Your task to perform on an android device: Go to Google Image 0: 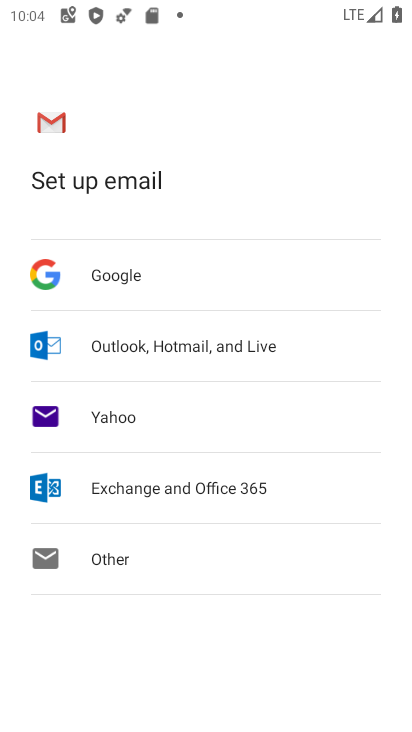
Step 0: press home button
Your task to perform on an android device: Go to Google Image 1: 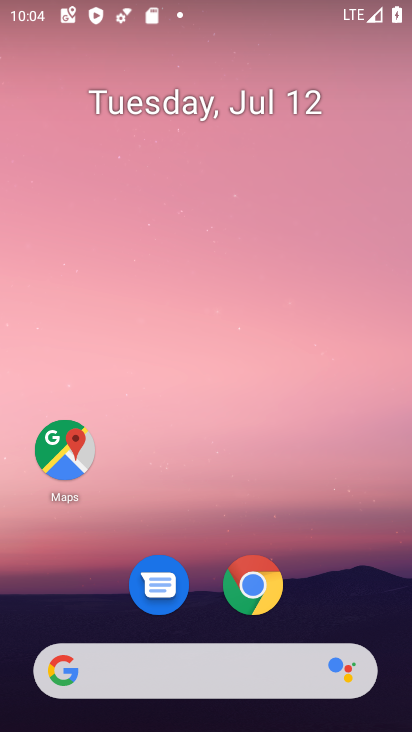
Step 1: drag from (218, 668) to (281, 43)
Your task to perform on an android device: Go to Google Image 2: 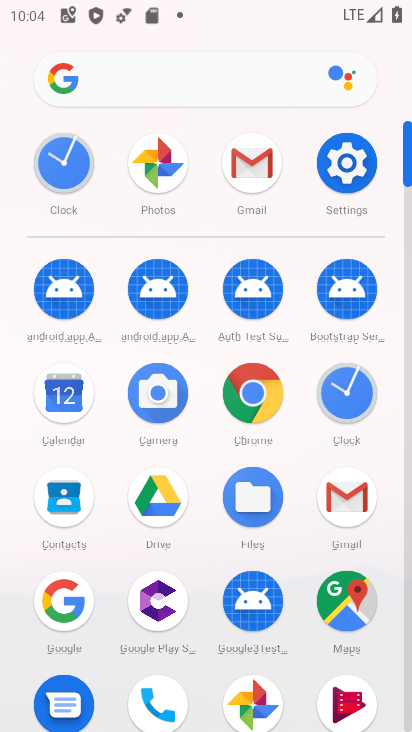
Step 2: drag from (210, 660) to (339, 165)
Your task to perform on an android device: Go to Google Image 3: 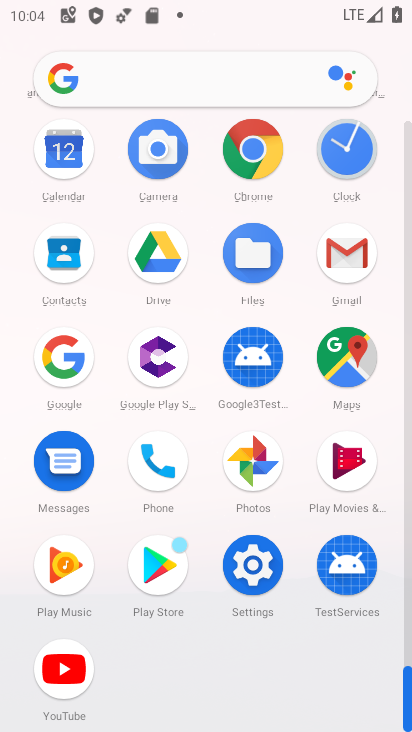
Step 3: drag from (191, 209) to (231, 584)
Your task to perform on an android device: Go to Google Image 4: 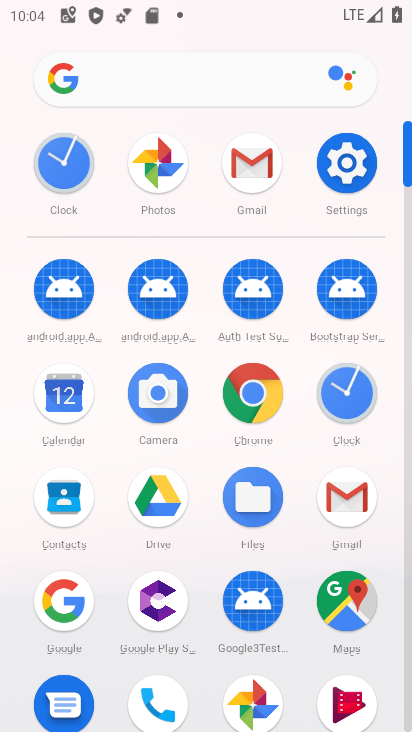
Step 4: click (78, 609)
Your task to perform on an android device: Go to Google Image 5: 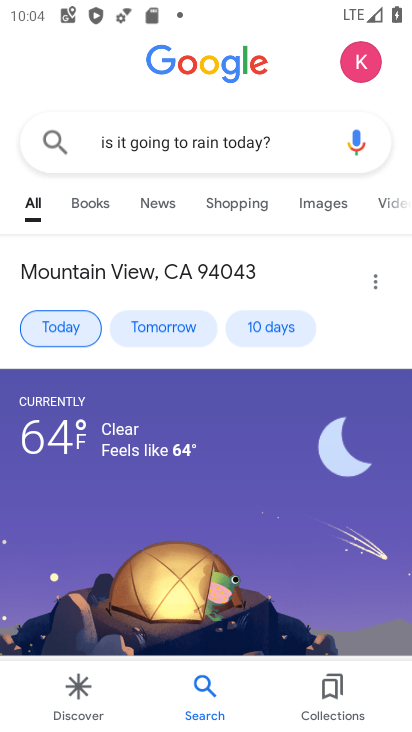
Step 5: task complete